Your task to perform on an android device: Go to sound settings Image 0: 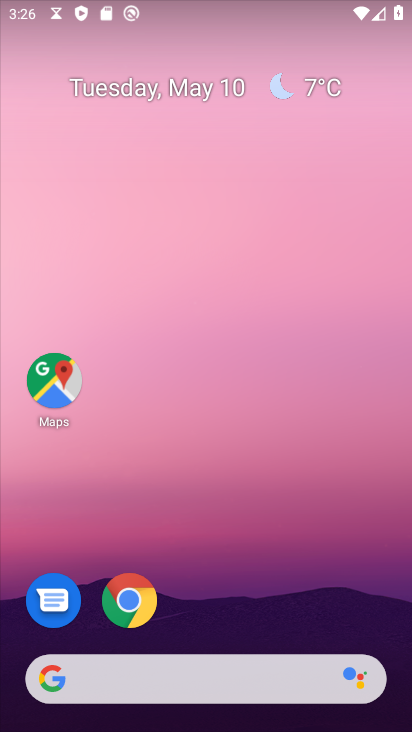
Step 0: drag from (240, 515) to (222, 200)
Your task to perform on an android device: Go to sound settings Image 1: 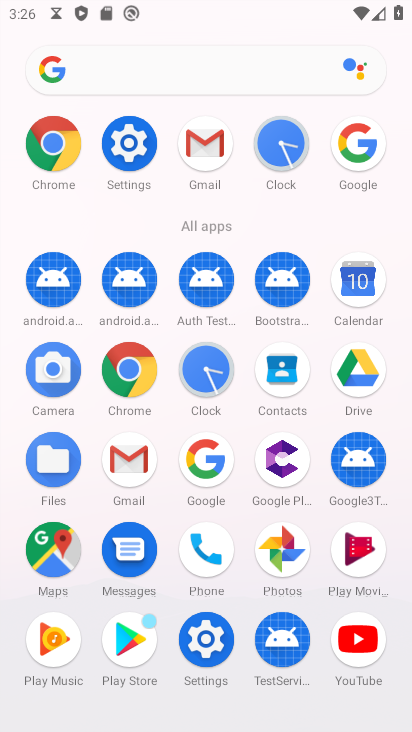
Step 1: click (137, 136)
Your task to perform on an android device: Go to sound settings Image 2: 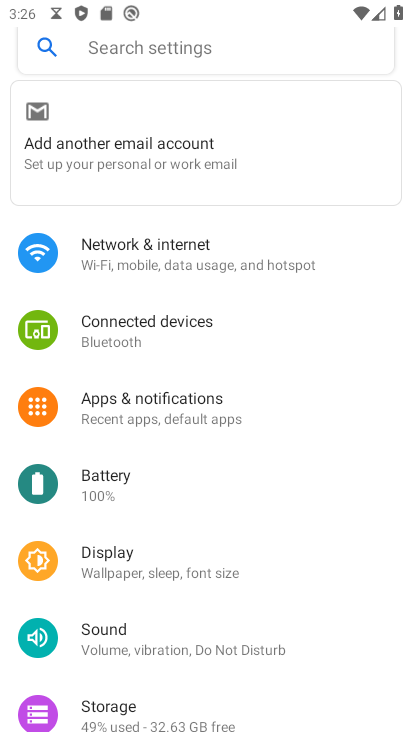
Step 2: click (180, 634)
Your task to perform on an android device: Go to sound settings Image 3: 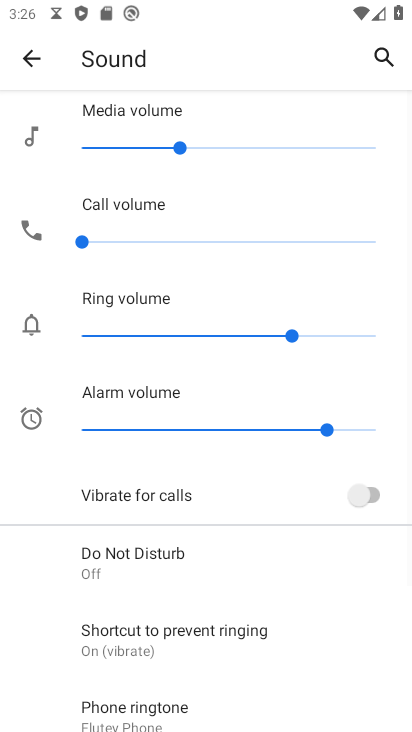
Step 3: task complete